Your task to perform on an android device: Open Google Maps and go to "Timeline" Image 0: 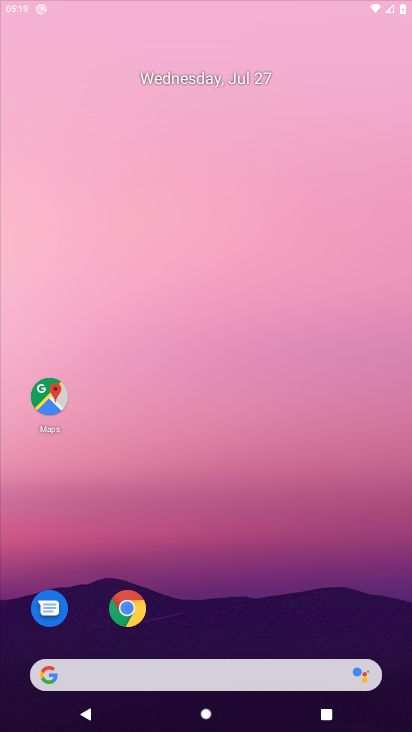
Step 0: press home button
Your task to perform on an android device: Open Google Maps and go to "Timeline" Image 1: 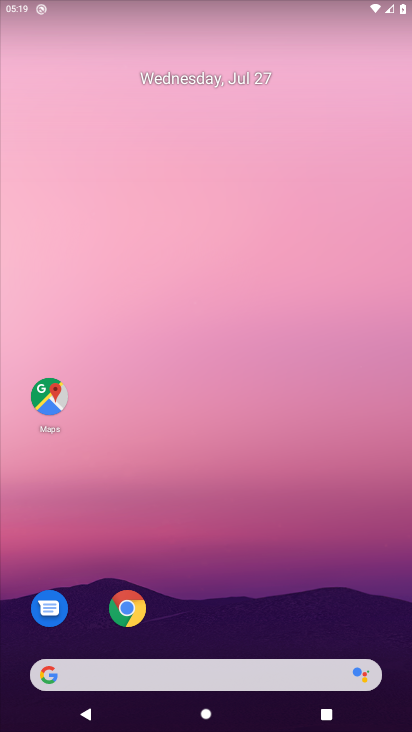
Step 1: drag from (214, 620) to (130, 238)
Your task to perform on an android device: Open Google Maps and go to "Timeline" Image 2: 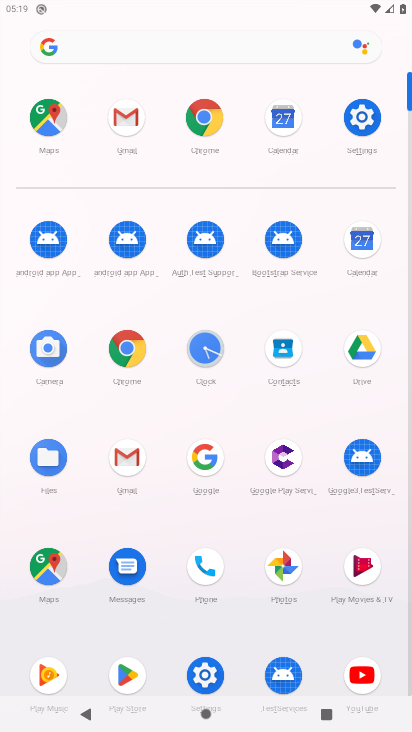
Step 2: click (36, 118)
Your task to perform on an android device: Open Google Maps and go to "Timeline" Image 3: 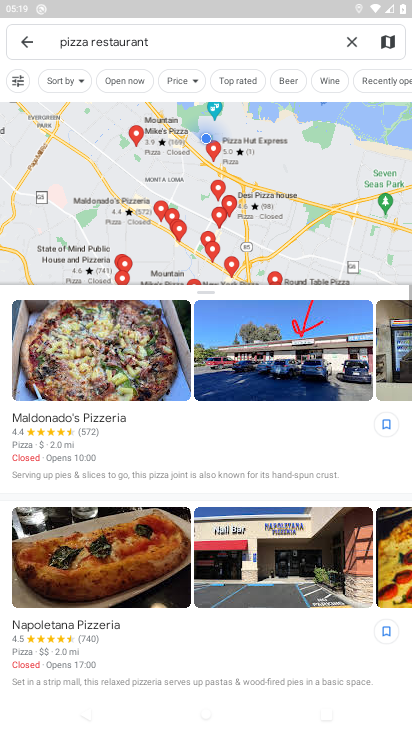
Step 3: click (24, 40)
Your task to perform on an android device: Open Google Maps and go to "Timeline" Image 4: 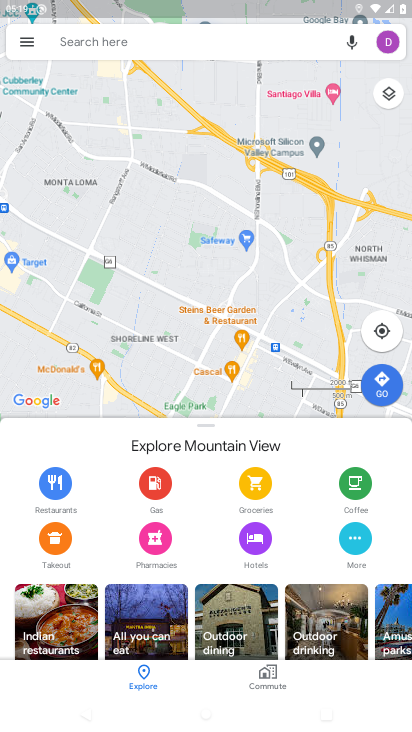
Step 4: click (24, 40)
Your task to perform on an android device: Open Google Maps and go to "Timeline" Image 5: 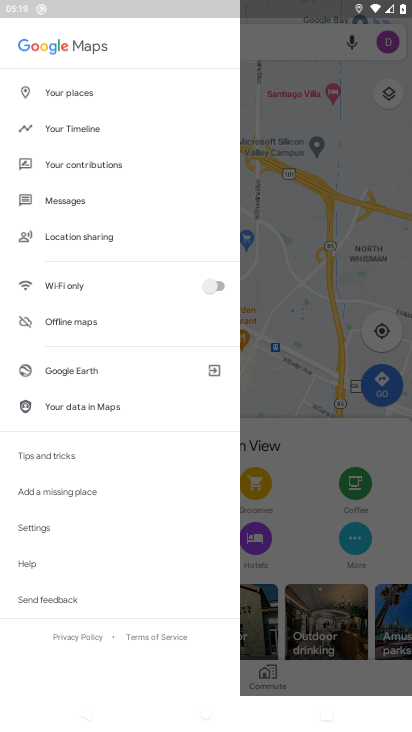
Step 5: click (66, 130)
Your task to perform on an android device: Open Google Maps and go to "Timeline" Image 6: 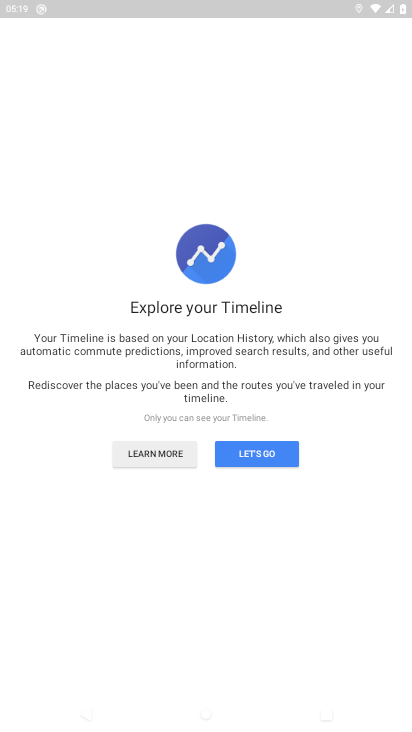
Step 6: click (255, 455)
Your task to perform on an android device: Open Google Maps and go to "Timeline" Image 7: 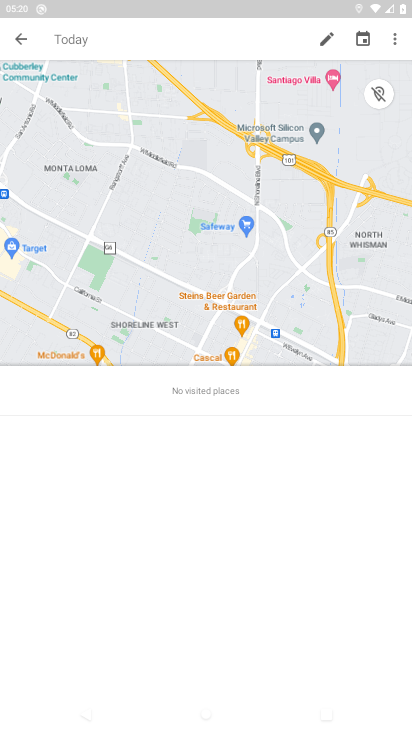
Step 7: task complete